Your task to perform on an android device: make emails show in primary in the gmail app Image 0: 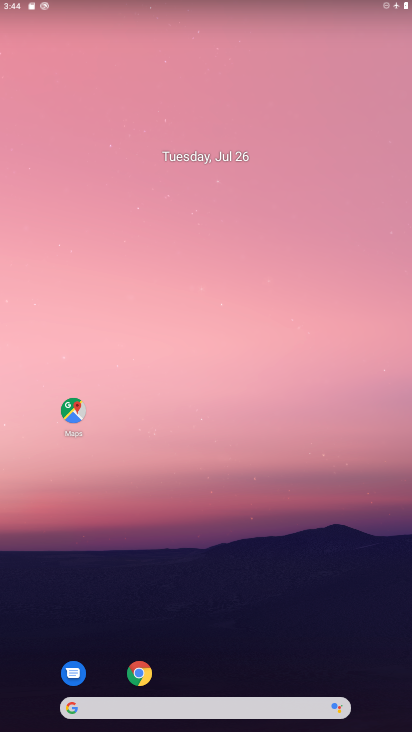
Step 0: drag from (245, 681) to (239, 69)
Your task to perform on an android device: make emails show in primary in the gmail app Image 1: 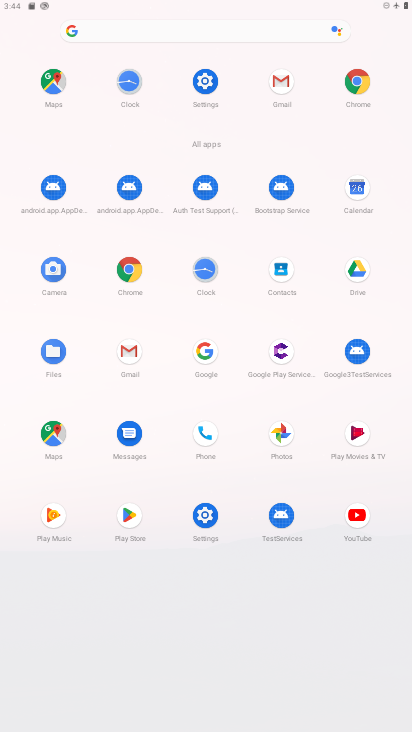
Step 1: click (282, 85)
Your task to perform on an android device: make emails show in primary in the gmail app Image 2: 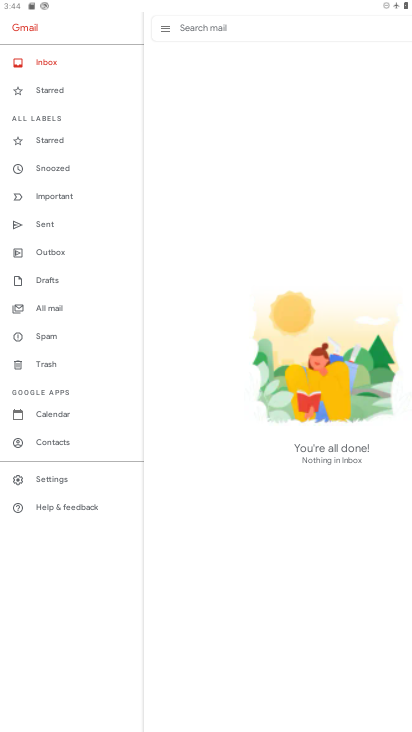
Step 2: click (55, 475)
Your task to perform on an android device: make emails show in primary in the gmail app Image 3: 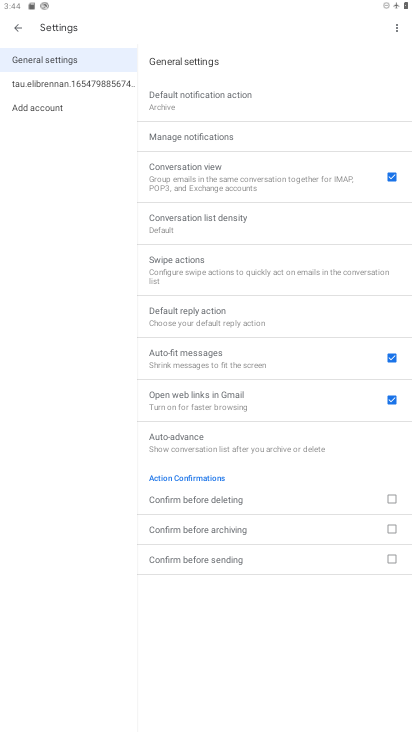
Step 3: click (43, 84)
Your task to perform on an android device: make emails show in primary in the gmail app Image 4: 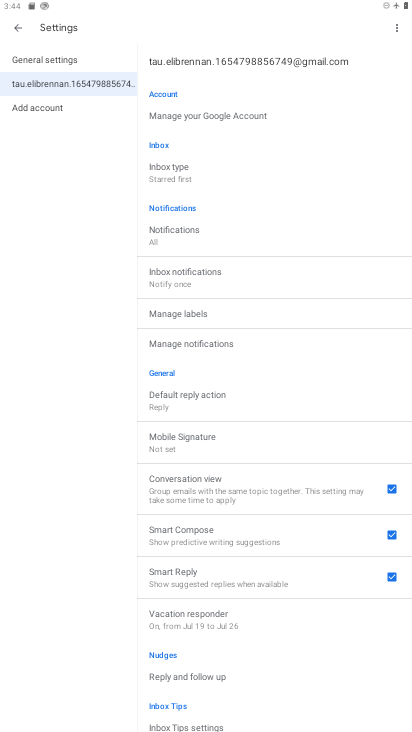
Step 4: task complete